Your task to perform on an android device: Open the web browser Image 0: 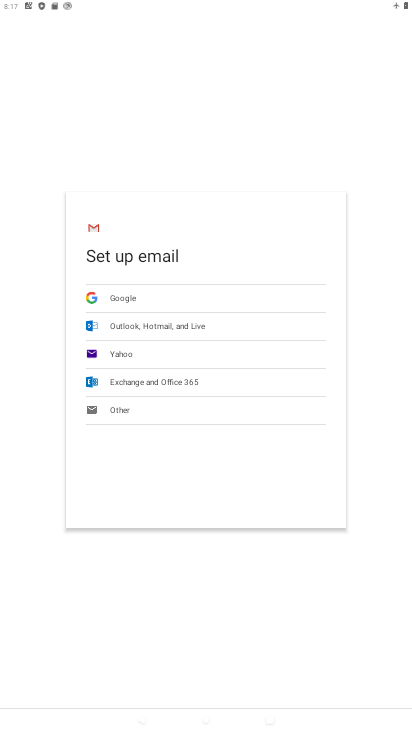
Step 0: press back button
Your task to perform on an android device: Open the web browser Image 1: 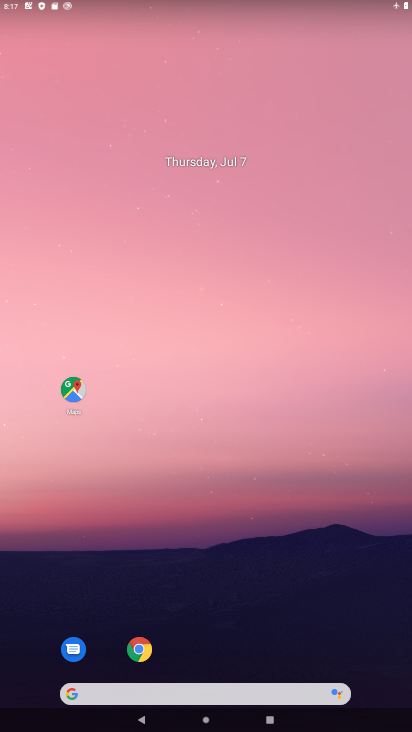
Step 1: drag from (223, 696) to (96, 93)
Your task to perform on an android device: Open the web browser Image 2: 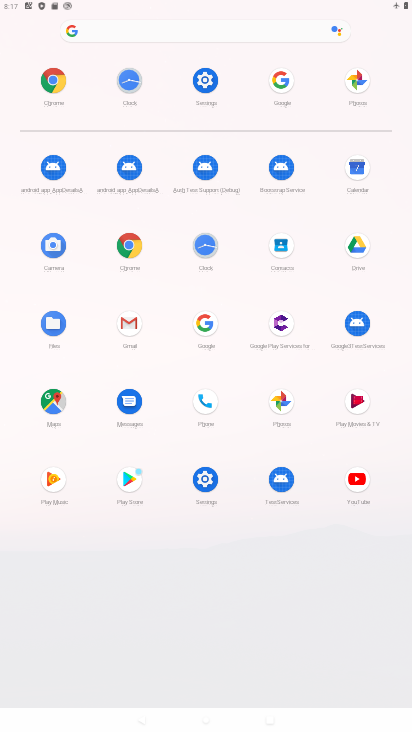
Step 2: click (51, 87)
Your task to perform on an android device: Open the web browser Image 3: 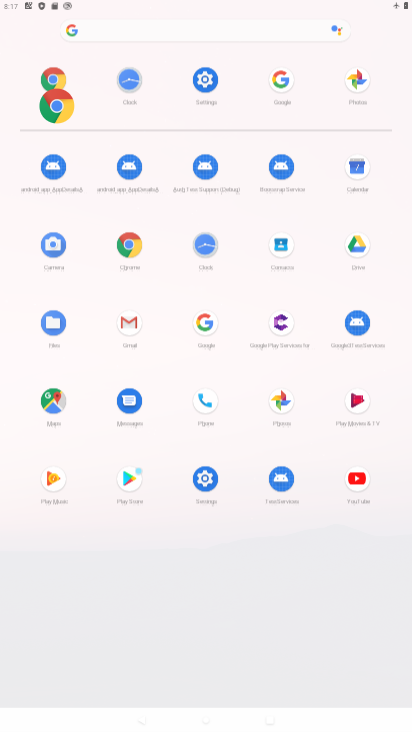
Step 3: click (50, 85)
Your task to perform on an android device: Open the web browser Image 4: 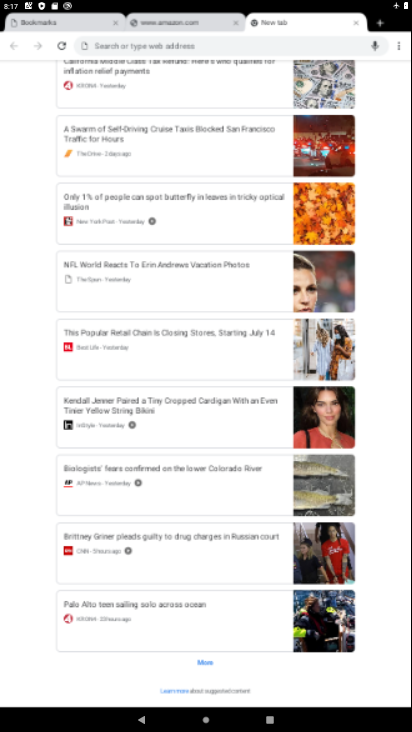
Step 4: click (50, 83)
Your task to perform on an android device: Open the web browser Image 5: 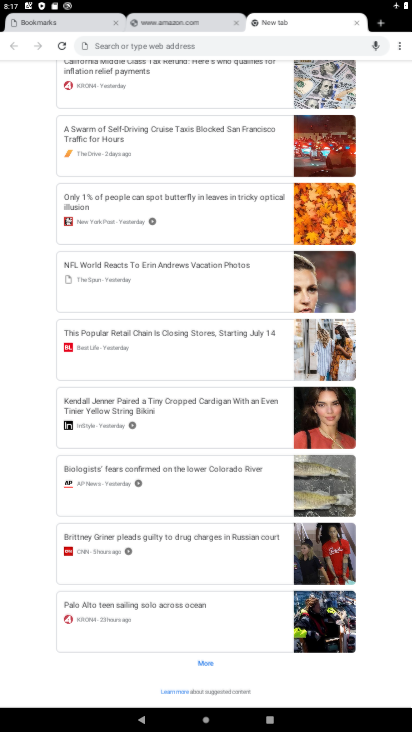
Step 5: drag from (184, 176) to (186, 612)
Your task to perform on an android device: Open the web browser Image 6: 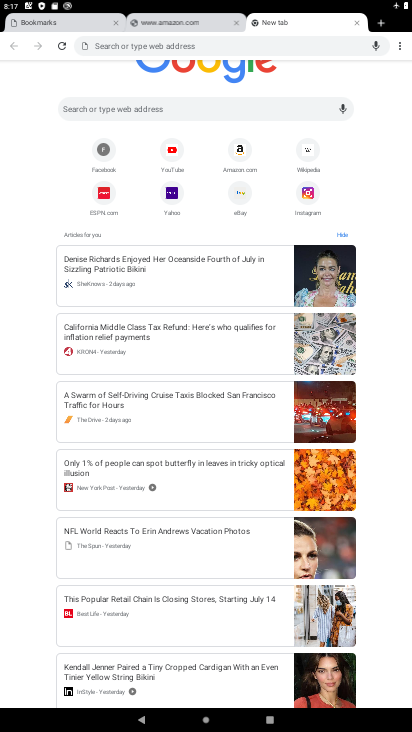
Step 6: click (355, 23)
Your task to perform on an android device: Open the web browser Image 7: 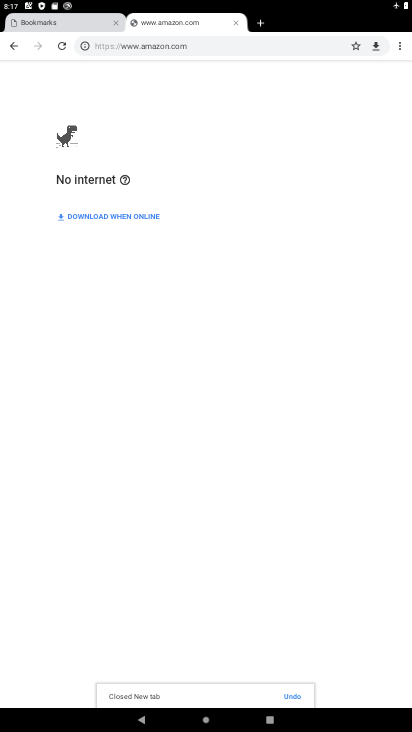
Step 7: click (232, 24)
Your task to perform on an android device: Open the web browser Image 8: 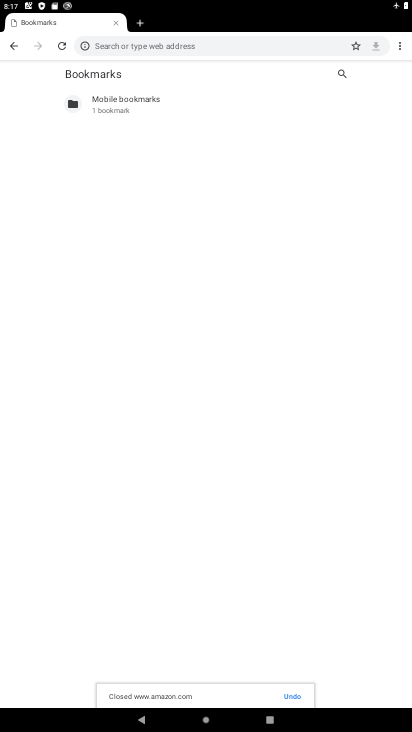
Step 8: click (145, 40)
Your task to perform on an android device: Open the web browser Image 9: 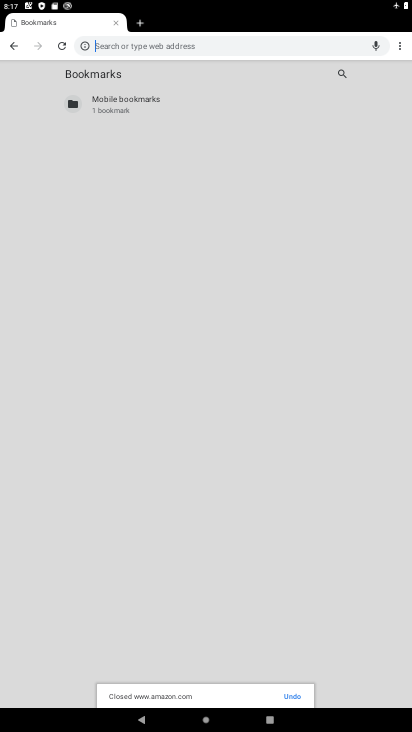
Step 9: click (149, 43)
Your task to perform on an android device: Open the web browser Image 10: 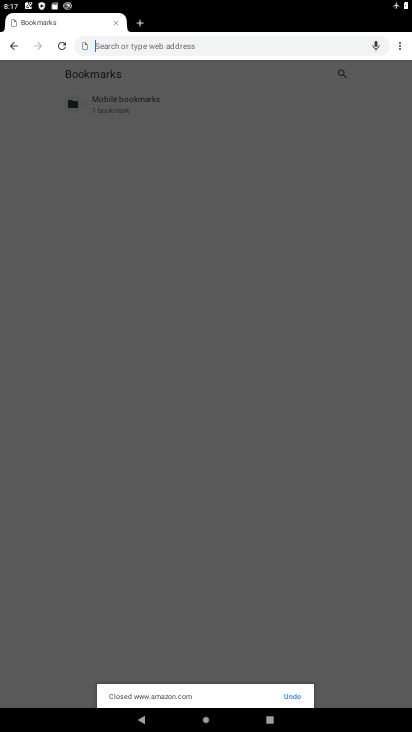
Step 10: click (149, 44)
Your task to perform on an android device: Open the web browser Image 11: 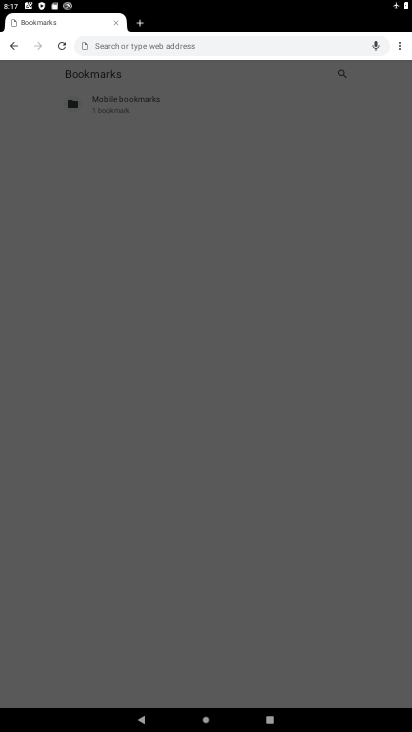
Step 11: drag from (399, 45) to (306, 44)
Your task to perform on an android device: Open the web browser Image 12: 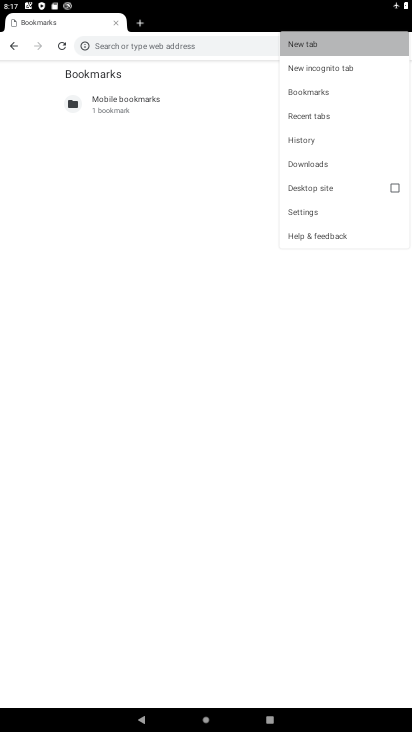
Step 12: click (309, 47)
Your task to perform on an android device: Open the web browser Image 13: 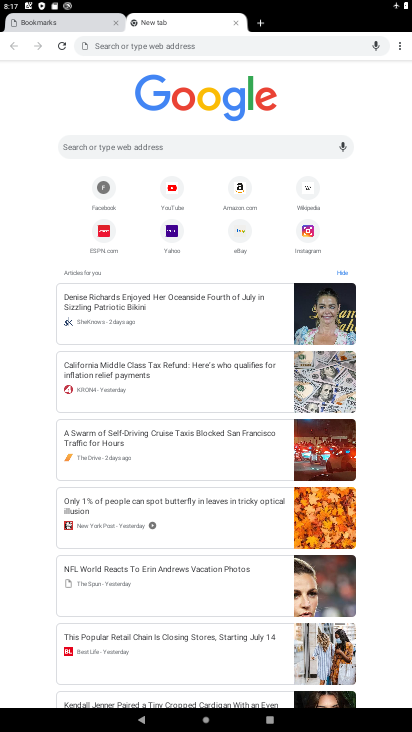
Step 13: task complete